Your task to perform on an android device: Open my contact list Image 0: 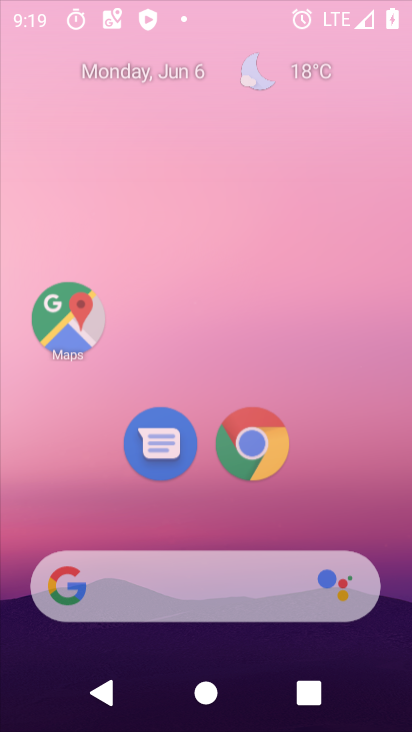
Step 0: drag from (273, 132) to (284, 39)
Your task to perform on an android device: Open my contact list Image 1: 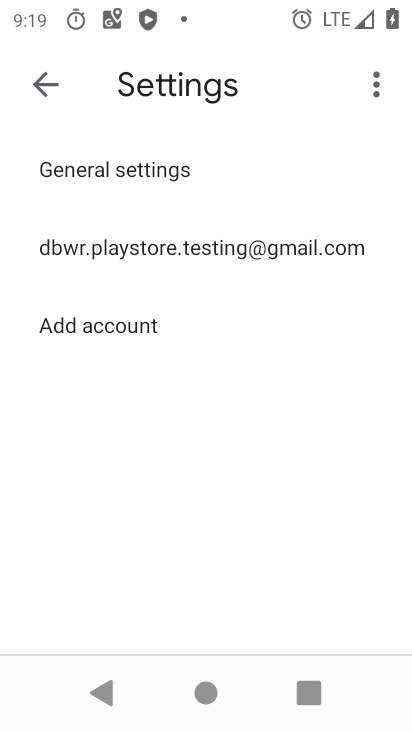
Step 1: press home button
Your task to perform on an android device: Open my contact list Image 2: 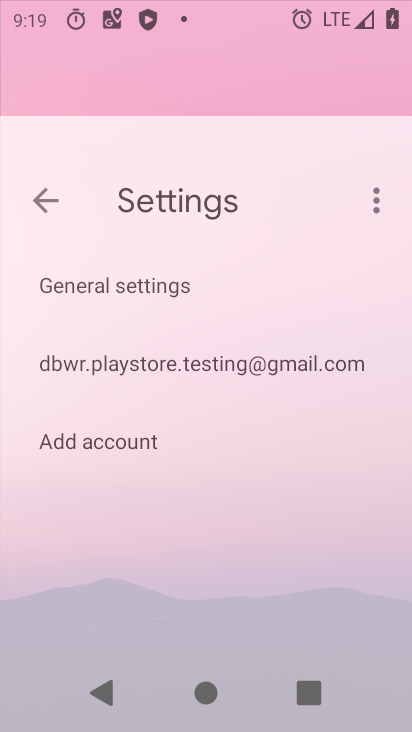
Step 2: drag from (183, 606) to (223, 69)
Your task to perform on an android device: Open my contact list Image 3: 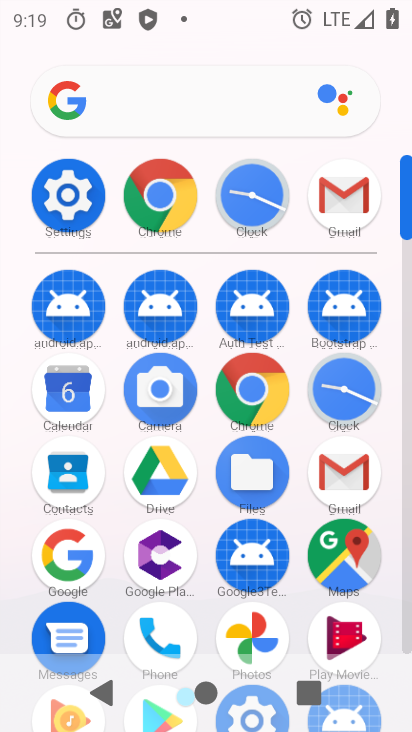
Step 3: click (68, 484)
Your task to perform on an android device: Open my contact list Image 4: 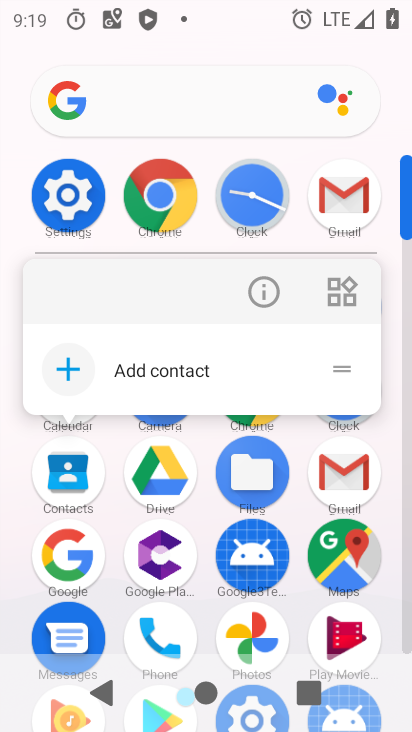
Step 4: click (282, 291)
Your task to perform on an android device: Open my contact list Image 5: 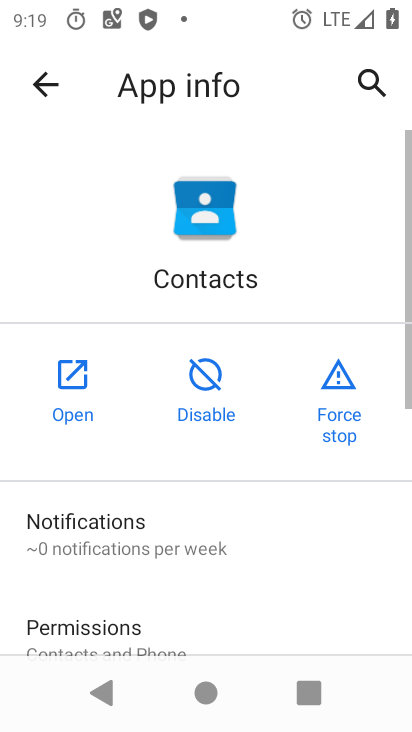
Step 5: click (75, 400)
Your task to perform on an android device: Open my contact list Image 6: 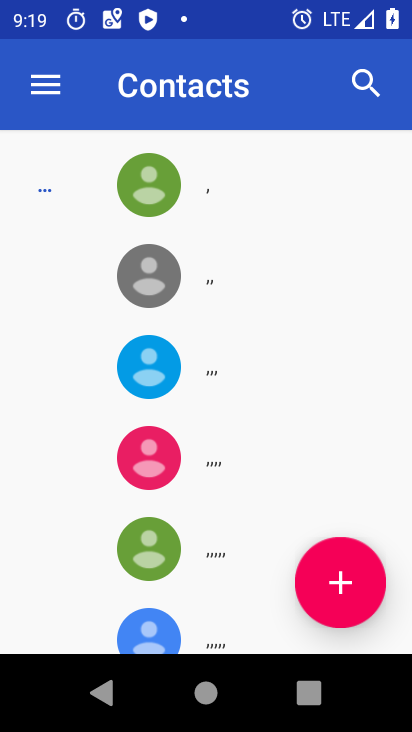
Step 6: task complete